Your task to perform on an android device: delete the emails in spam in the gmail app Image 0: 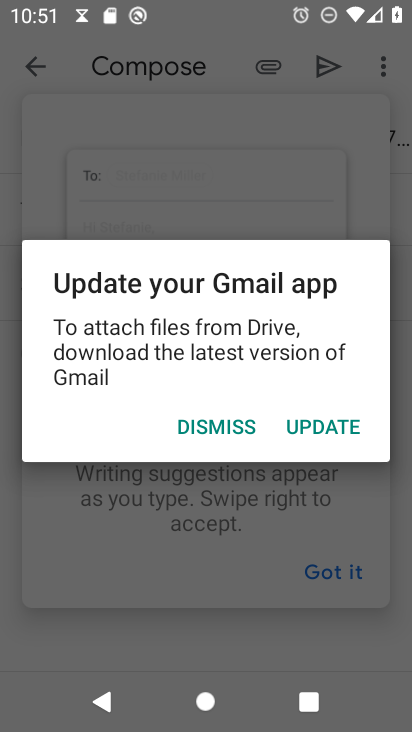
Step 0: press home button
Your task to perform on an android device: delete the emails in spam in the gmail app Image 1: 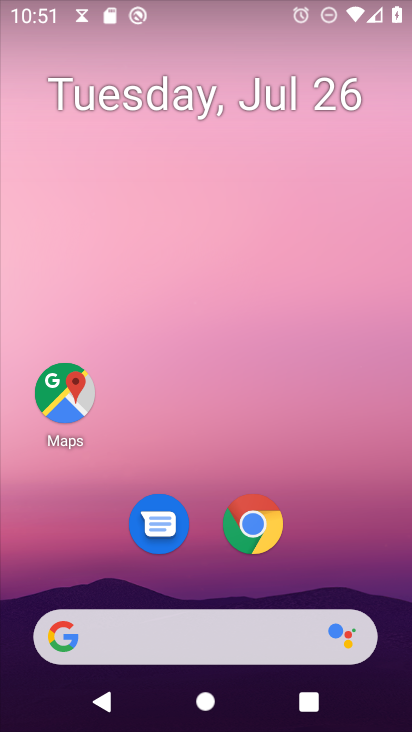
Step 1: press home button
Your task to perform on an android device: delete the emails in spam in the gmail app Image 2: 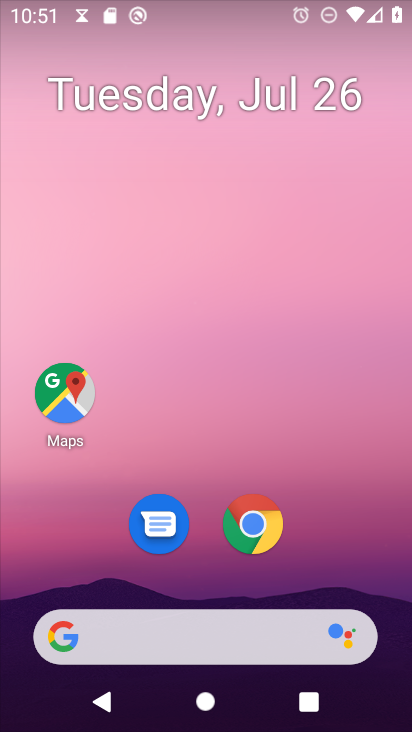
Step 2: drag from (207, 648) to (330, 137)
Your task to perform on an android device: delete the emails in spam in the gmail app Image 3: 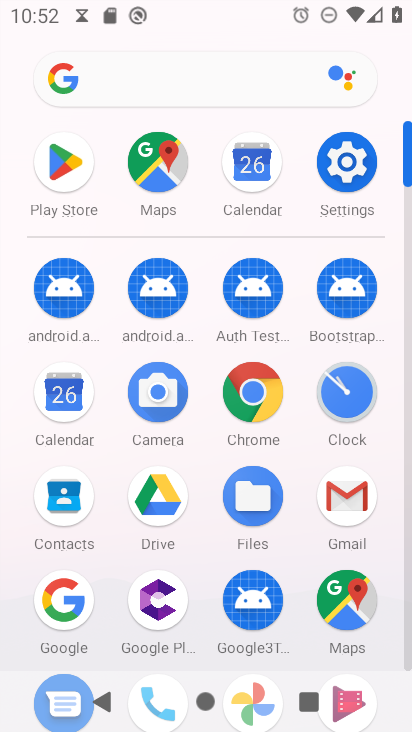
Step 3: click (341, 503)
Your task to perform on an android device: delete the emails in spam in the gmail app Image 4: 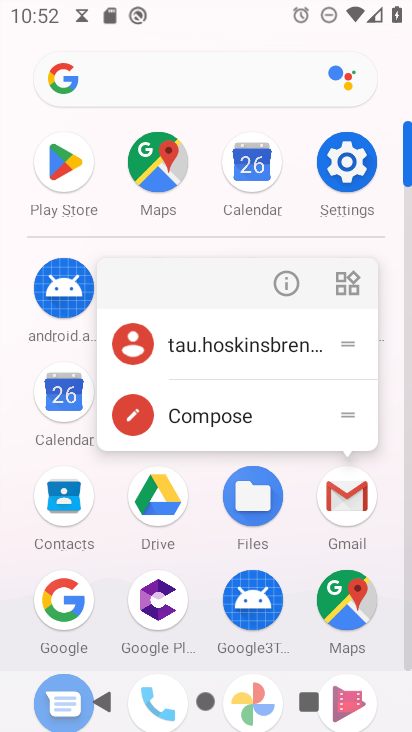
Step 4: click (341, 502)
Your task to perform on an android device: delete the emails in spam in the gmail app Image 5: 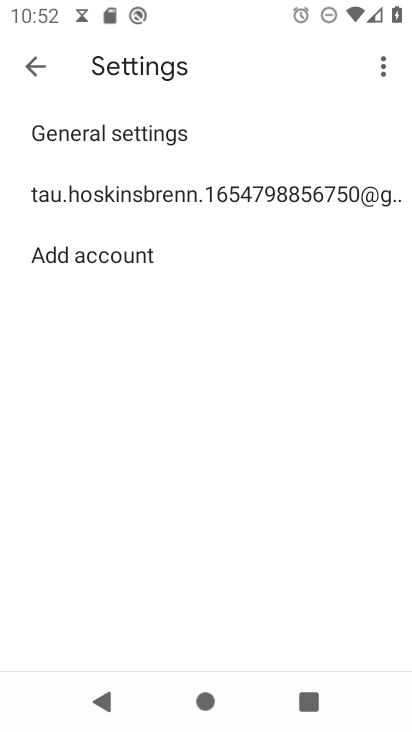
Step 5: click (34, 63)
Your task to perform on an android device: delete the emails in spam in the gmail app Image 6: 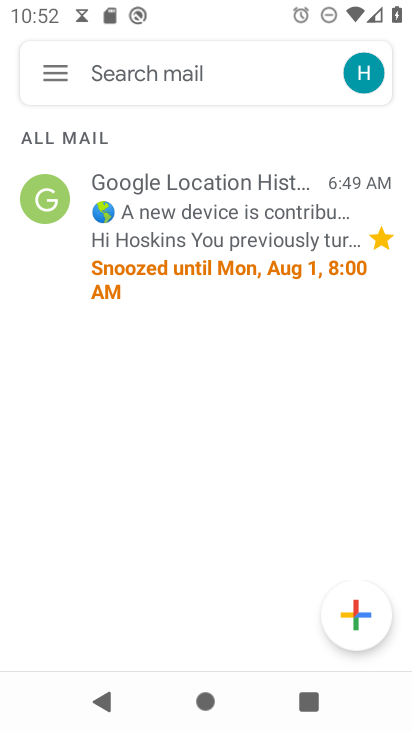
Step 6: click (54, 73)
Your task to perform on an android device: delete the emails in spam in the gmail app Image 7: 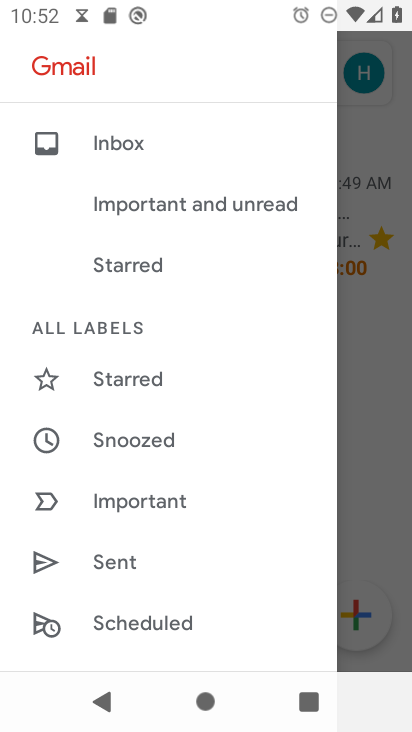
Step 7: drag from (147, 590) to (262, 95)
Your task to perform on an android device: delete the emails in spam in the gmail app Image 8: 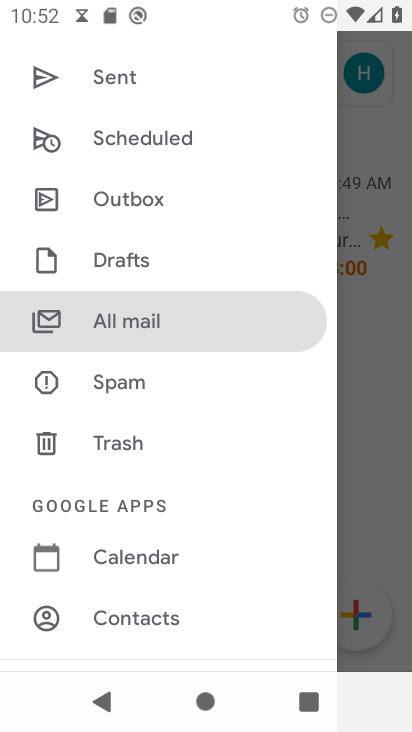
Step 8: click (131, 384)
Your task to perform on an android device: delete the emails in spam in the gmail app Image 9: 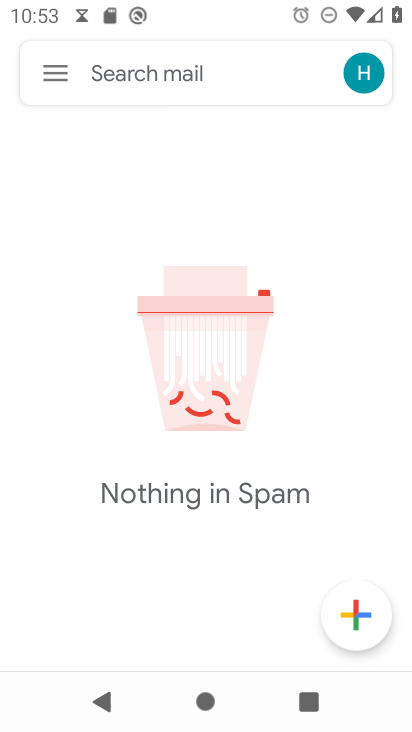
Step 9: task complete